Your task to perform on an android device: Show me popular games on the Play Store Image 0: 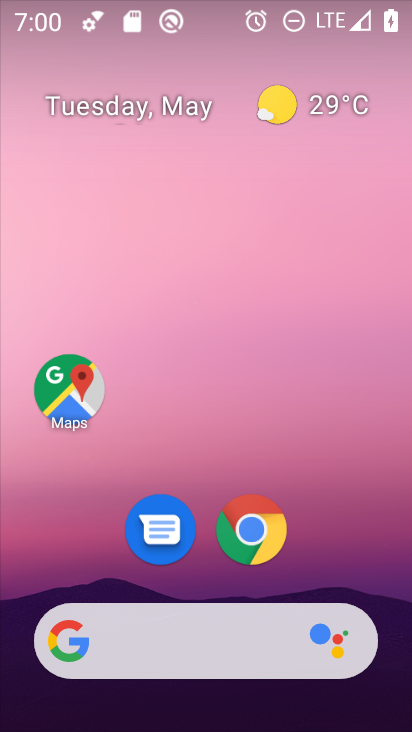
Step 0: drag from (387, 638) to (297, 2)
Your task to perform on an android device: Show me popular games on the Play Store Image 1: 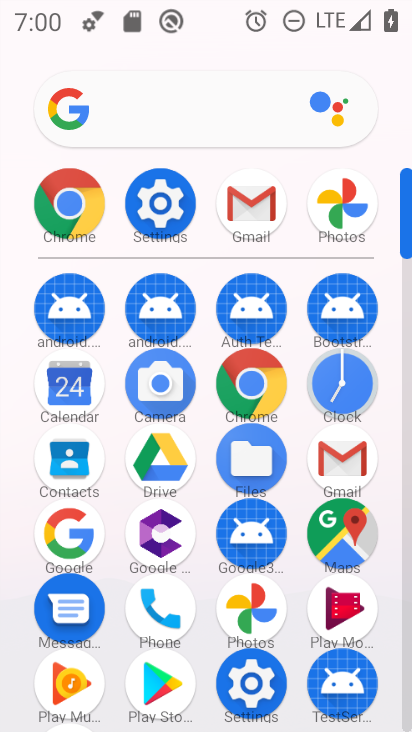
Step 1: click (156, 656)
Your task to perform on an android device: Show me popular games on the Play Store Image 2: 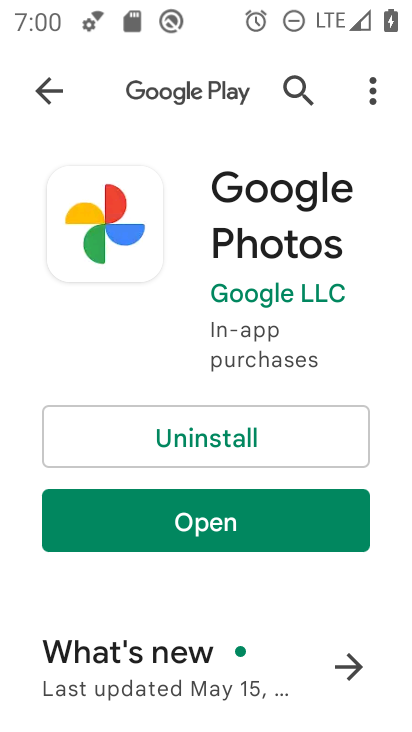
Step 2: press back button
Your task to perform on an android device: Show me popular games on the Play Store Image 3: 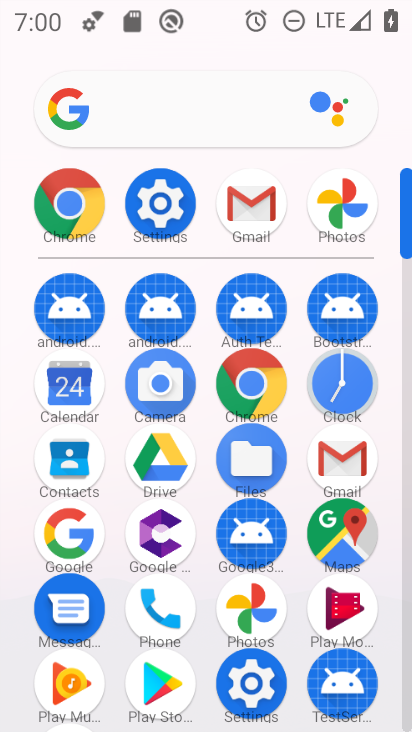
Step 3: click (179, 666)
Your task to perform on an android device: Show me popular games on the Play Store Image 4: 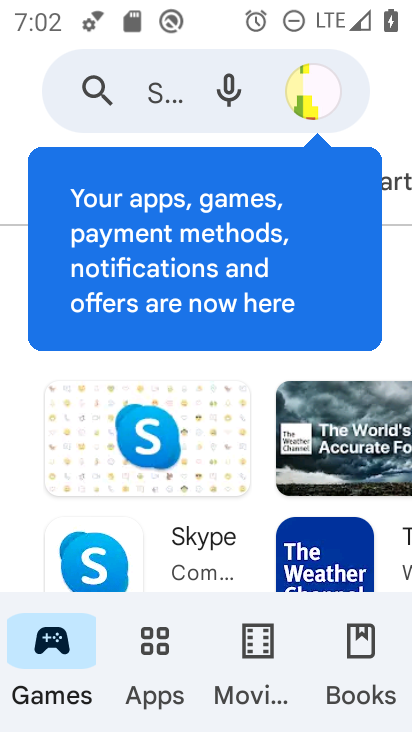
Step 4: task complete